Your task to perform on an android device: Set the phone to "Do not disturb". Image 0: 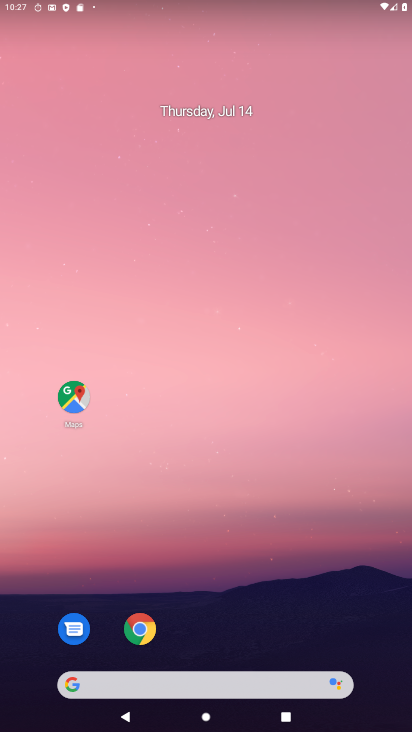
Step 0: drag from (244, 620) to (285, 31)
Your task to perform on an android device: Set the phone to "Do not disturb". Image 1: 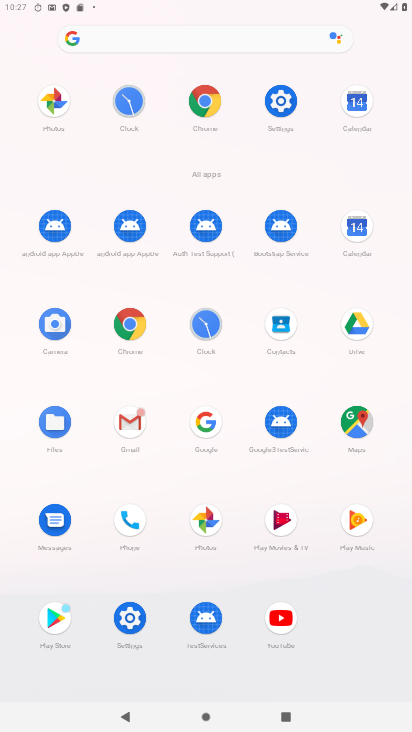
Step 1: click (283, 94)
Your task to perform on an android device: Set the phone to "Do not disturb". Image 2: 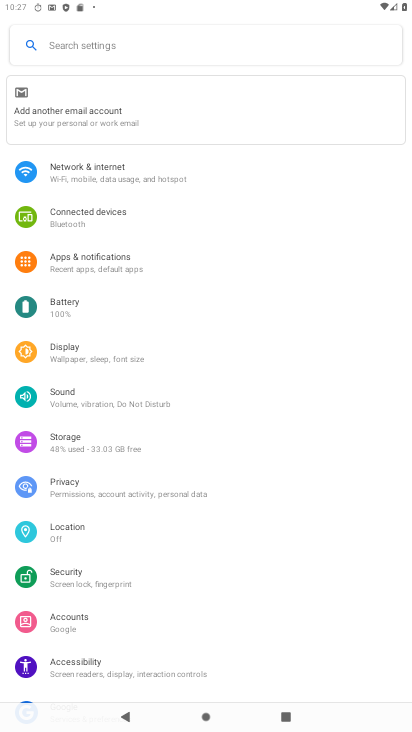
Step 2: click (152, 393)
Your task to perform on an android device: Set the phone to "Do not disturb". Image 3: 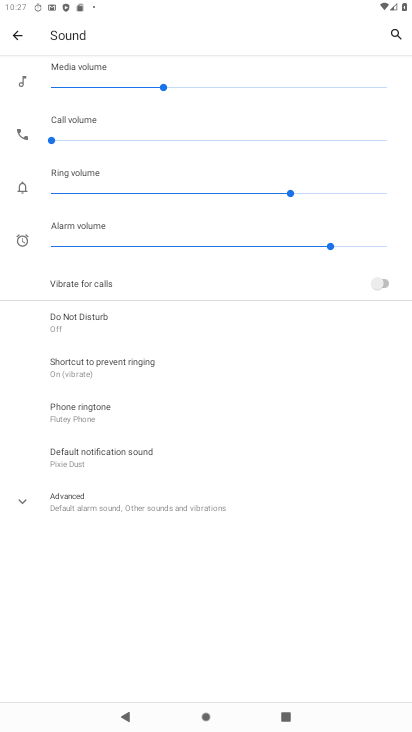
Step 3: click (136, 327)
Your task to perform on an android device: Set the phone to "Do not disturb". Image 4: 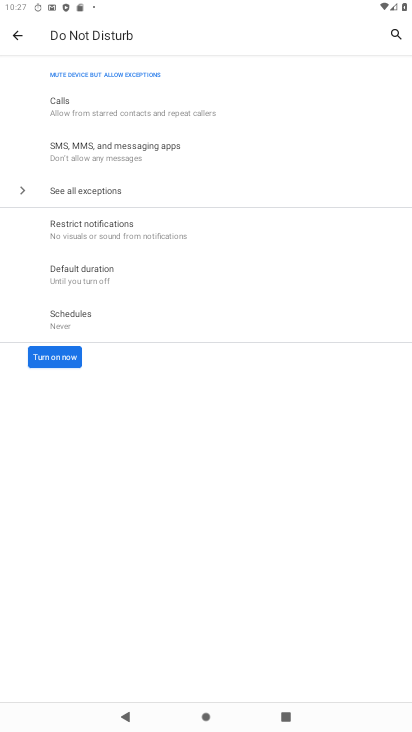
Step 4: click (62, 356)
Your task to perform on an android device: Set the phone to "Do not disturb". Image 5: 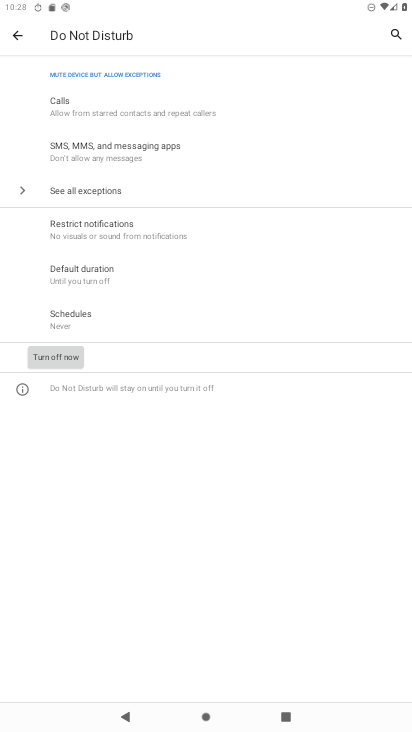
Step 5: task complete